Your task to perform on an android device: Open Android settings Image 0: 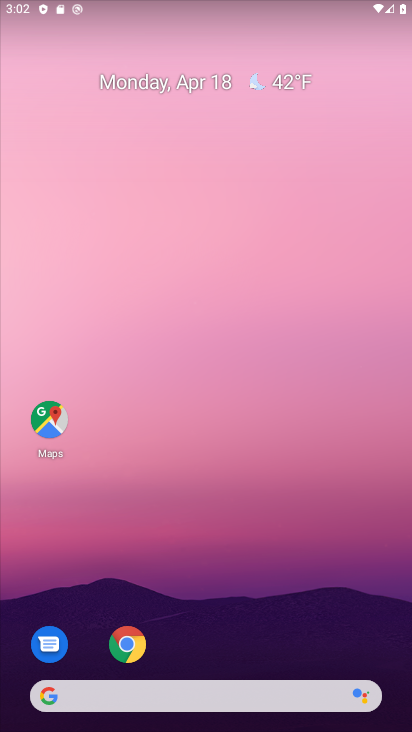
Step 0: drag from (263, 644) to (180, 122)
Your task to perform on an android device: Open Android settings Image 1: 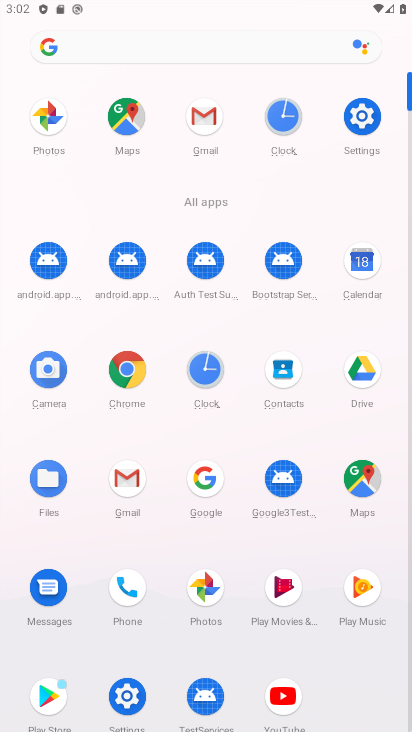
Step 1: click (368, 115)
Your task to perform on an android device: Open Android settings Image 2: 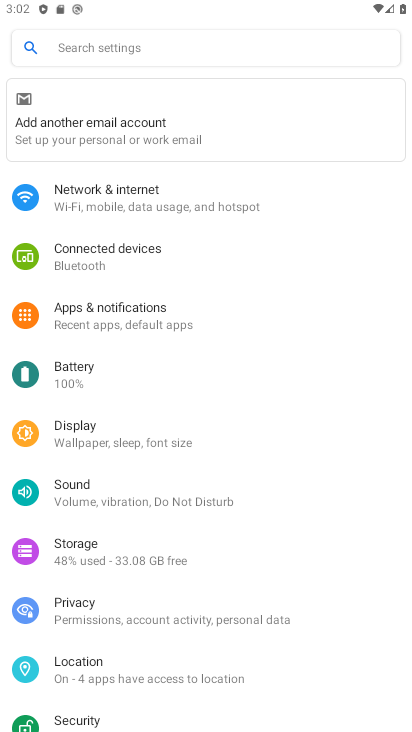
Step 2: drag from (268, 645) to (252, 235)
Your task to perform on an android device: Open Android settings Image 3: 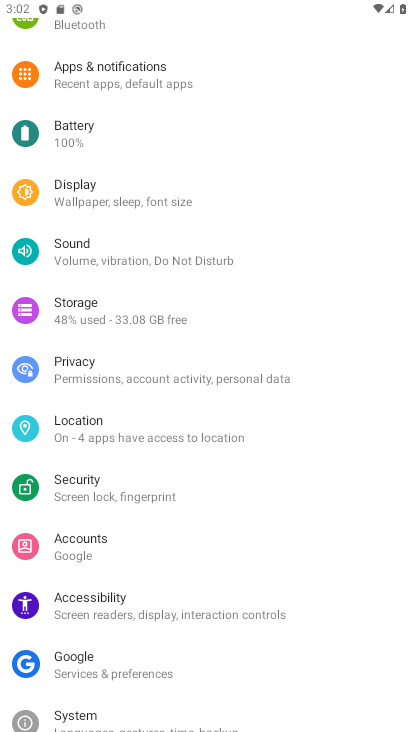
Step 3: drag from (160, 684) to (207, 254)
Your task to perform on an android device: Open Android settings Image 4: 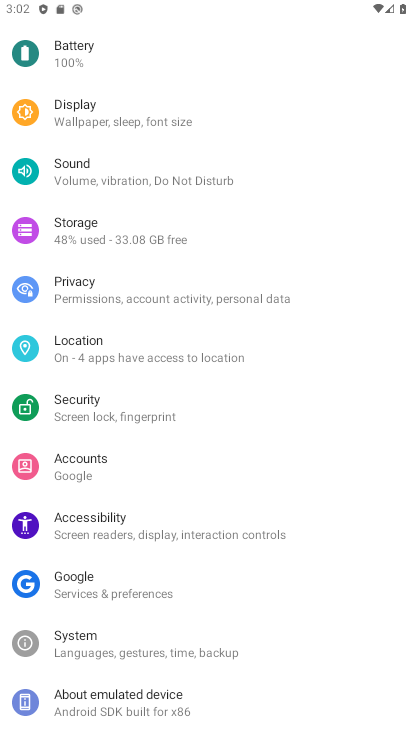
Step 4: click (125, 709)
Your task to perform on an android device: Open Android settings Image 5: 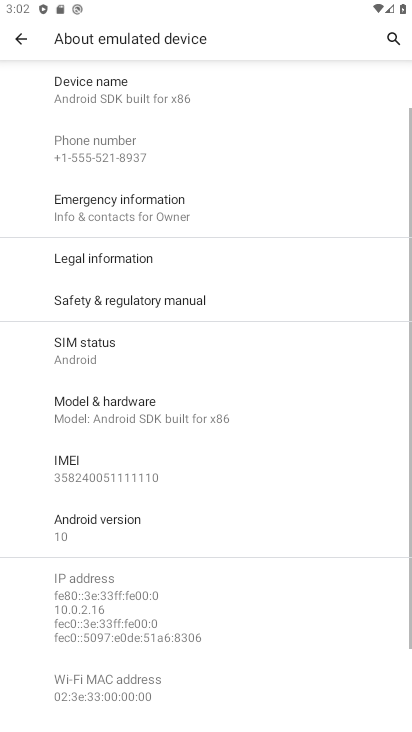
Step 5: click (122, 527)
Your task to perform on an android device: Open Android settings Image 6: 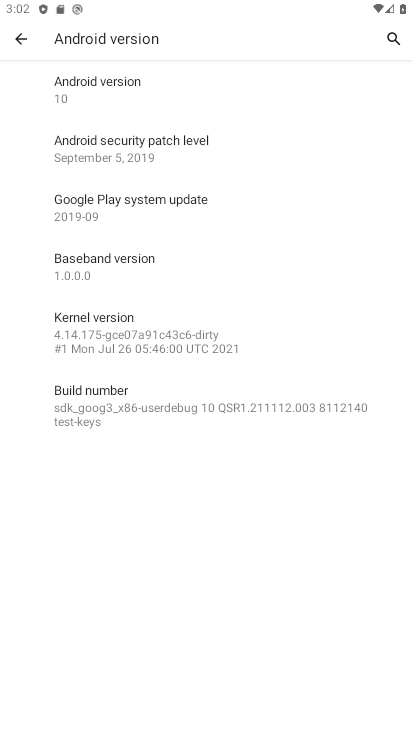
Step 6: click (181, 224)
Your task to perform on an android device: Open Android settings Image 7: 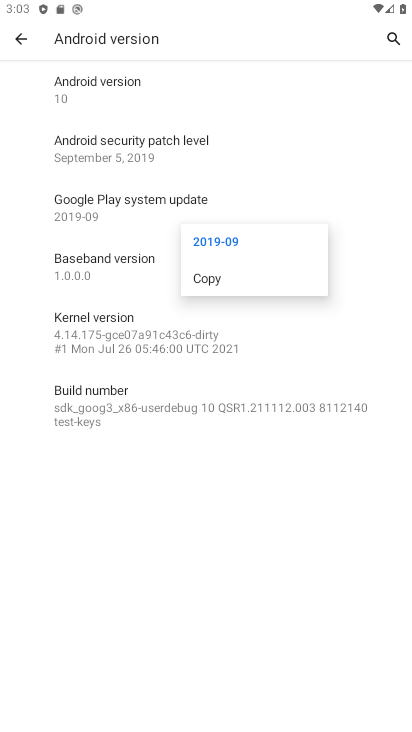
Step 7: click (154, 156)
Your task to perform on an android device: Open Android settings Image 8: 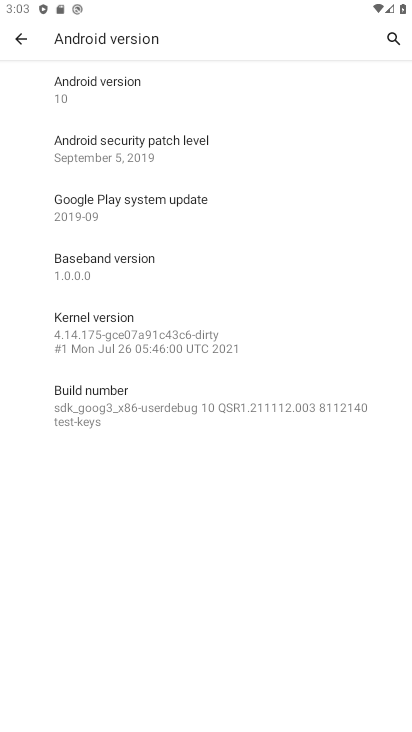
Step 8: click (154, 156)
Your task to perform on an android device: Open Android settings Image 9: 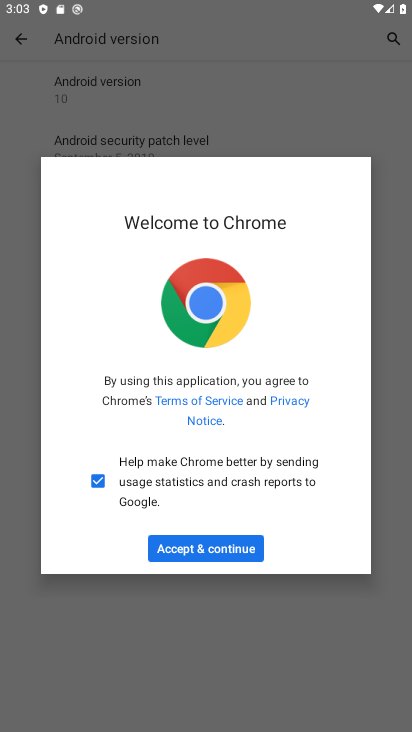
Step 9: click (196, 556)
Your task to perform on an android device: Open Android settings Image 10: 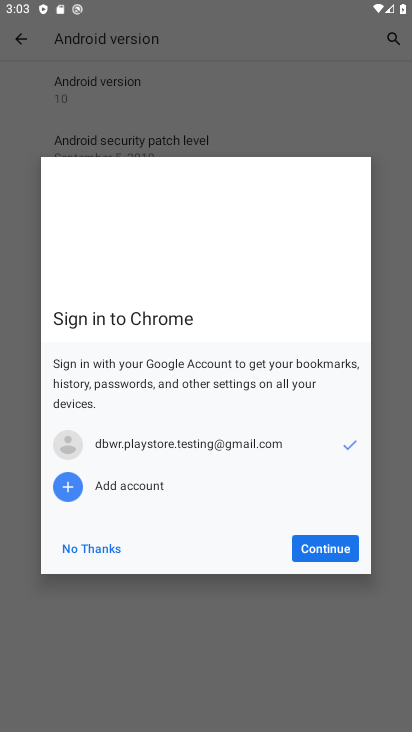
Step 10: click (313, 550)
Your task to perform on an android device: Open Android settings Image 11: 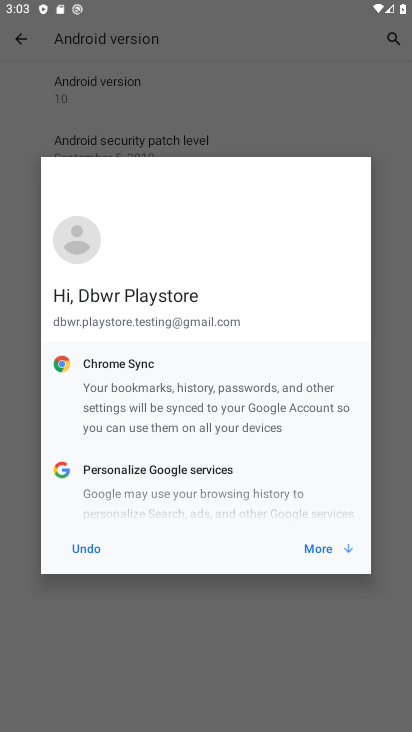
Step 11: click (313, 550)
Your task to perform on an android device: Open Android settings Image 12: 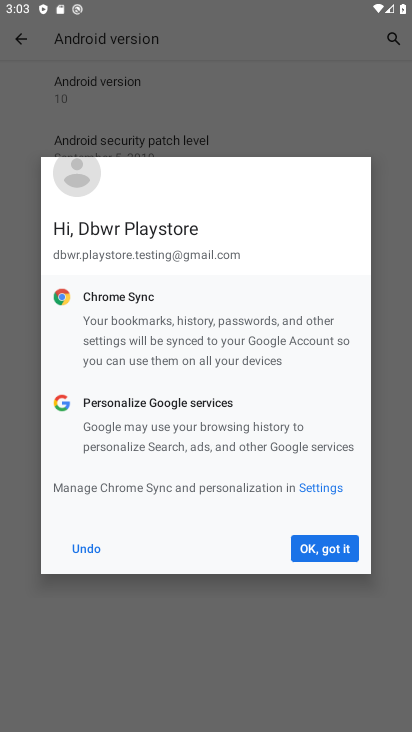
Step 12: click (313, 550)
Your task to perform on an android device: Open Android settings Image 13: 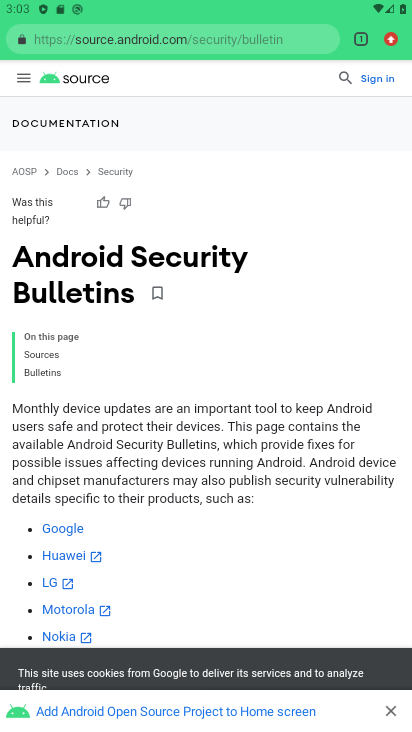
Step 13: task complete